Your task to perform on an android device: choose inbox layout in the gmail app Image 0: 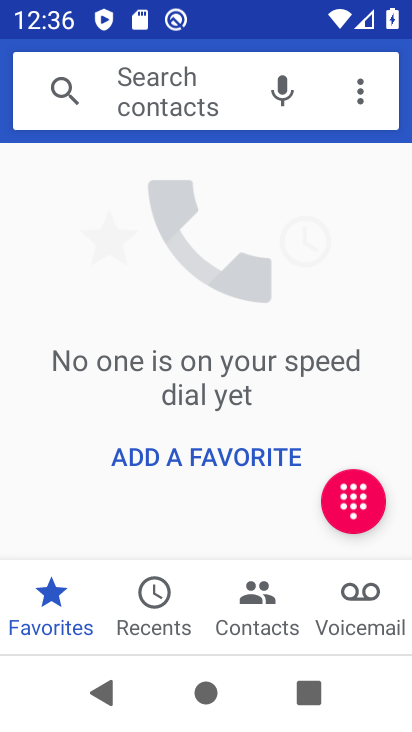
Step 0: task complete